Your task to perform on an android device: allow cookies in the chrome app Image 0: 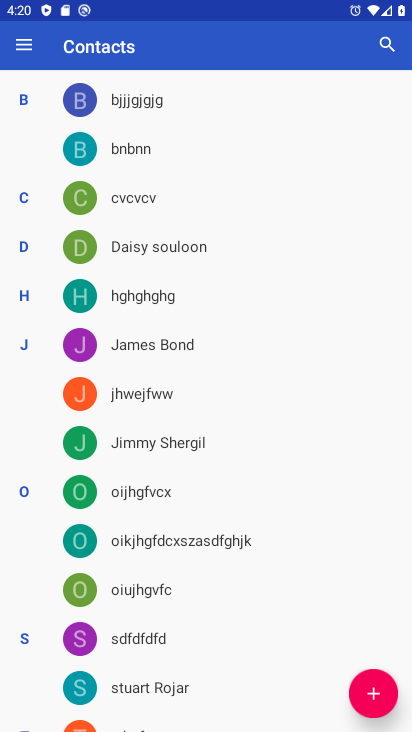
Step 0: press home button
Your task to perform on an android device: allow cookies in the chrome app Image 1: 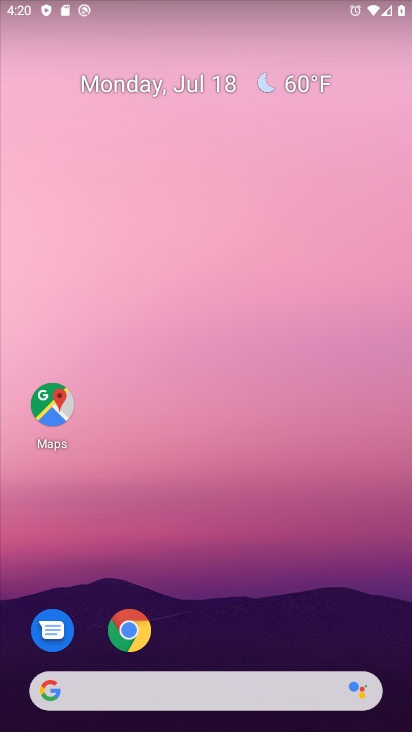
Step 1: click (129, 628)
Your task to perform on an android device: allow cookies in the chrome app Image 2: 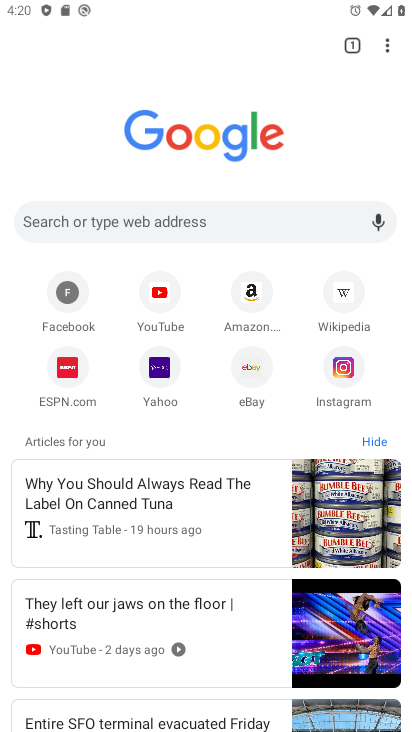
Step 2: click (382, 43)
Your task to perform on an android device: allow cookies in the chrome app Image 3: 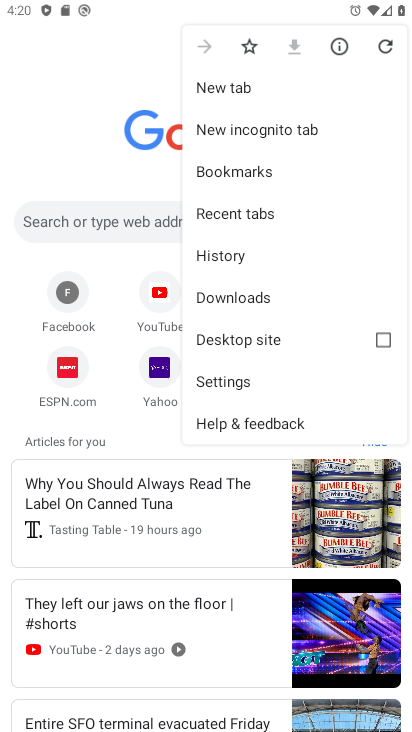
Step 3: click (223, 381)
Your task to perform on an android device: allow cookies in the chrome app Image 4: 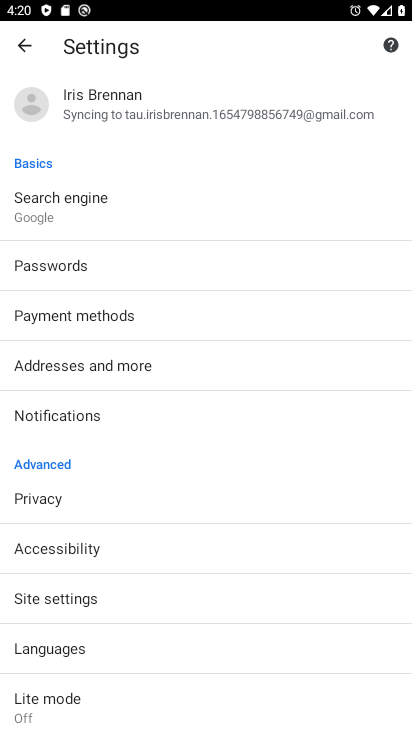
Step 4: click (75, 598)
Your task to perform on an android device: allow cookies in the chrome app Image 5: 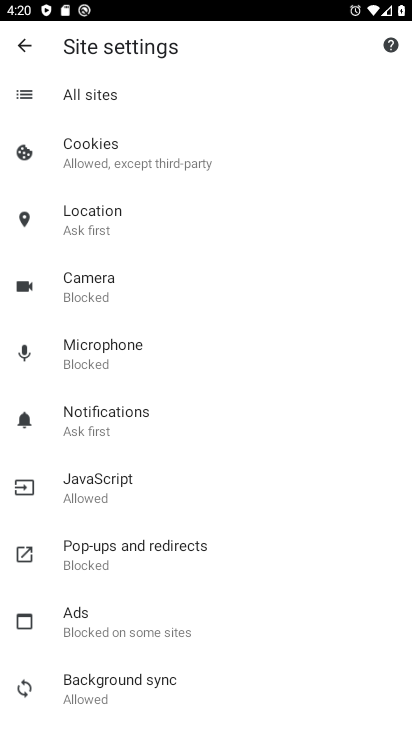
Step 5: click (93, 145)
Your task to perform on an android device: allow cookies in the chrome app Image 6: 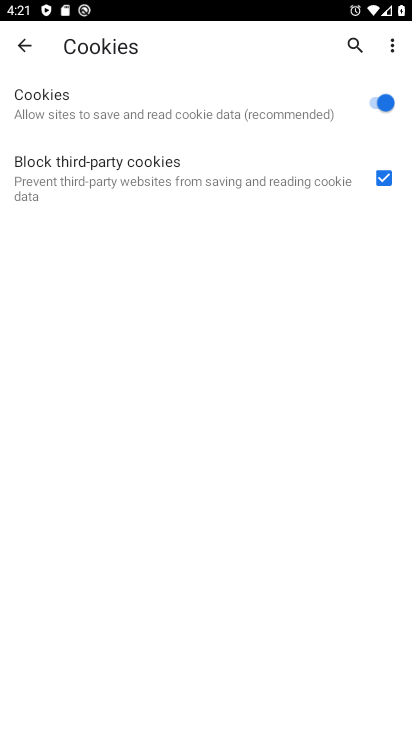
Step 6: task complete